Your task to perform on an android device: Open Android settings Image 0: 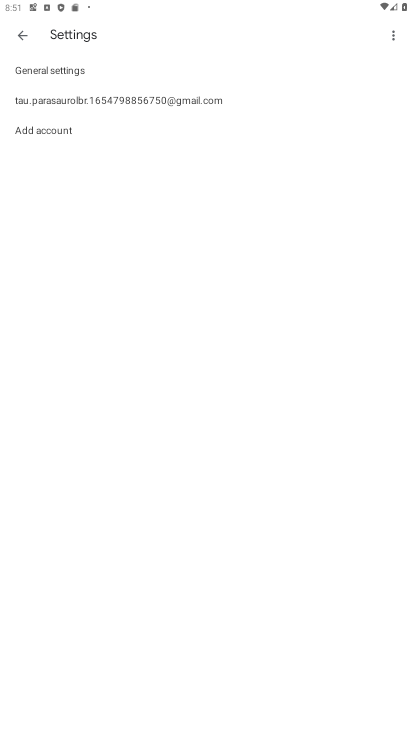
Step 0: press home button
Your task to perform on an android device: Open Android settings Image 1: 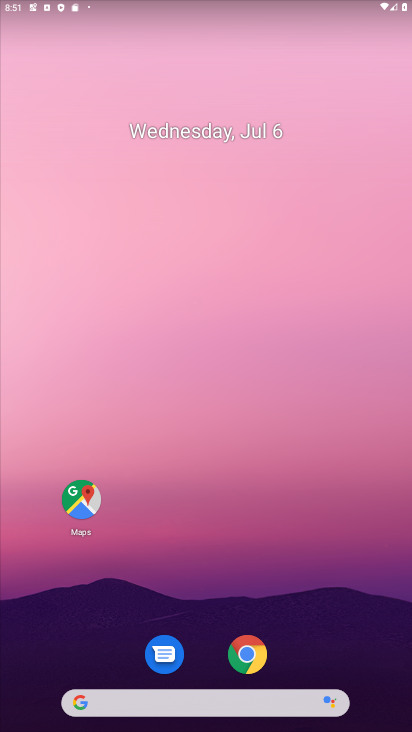
Step 1: drag from (189, 671) to (239, 211)
Your task to perform on an android device: Open Android settings Image 2: 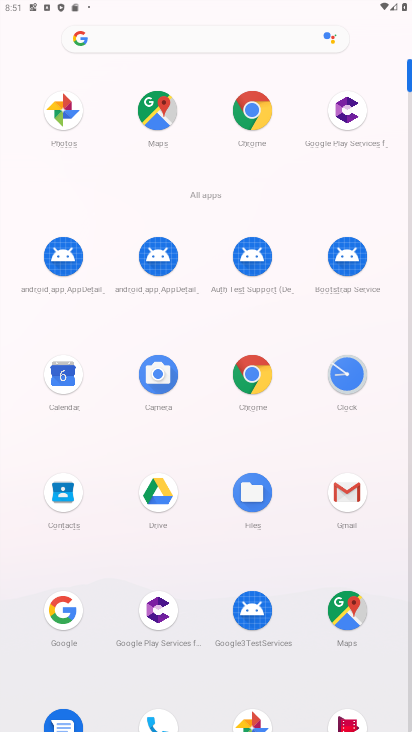
Step 2: drag from (210, 4) to (174, 436)
Your task to perform on an android device: Open Android settings Image 3: 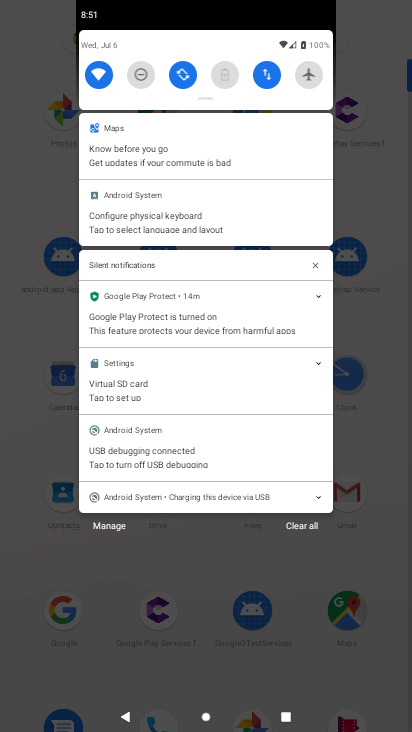
Step 3: drag from (194, 54) to (186, 520)
Your task to perform on an android device: Open Android settings Image 4: 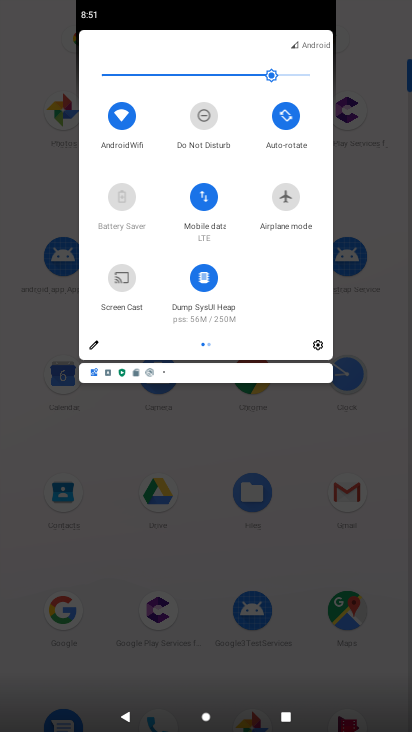
Step 4: click (316, 346)
Your task to perform on an android device: Open Android settings Image 5: 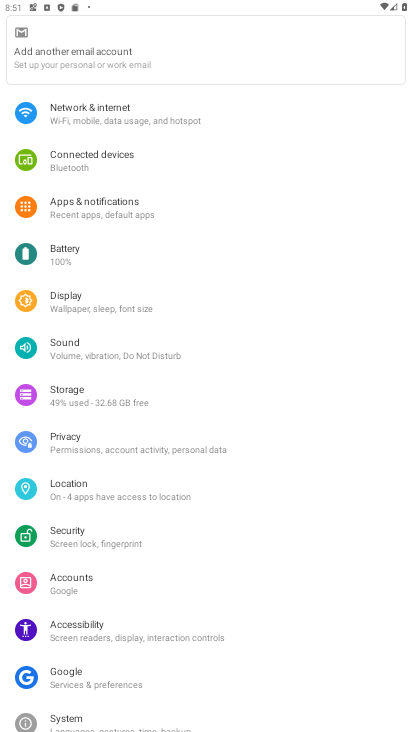
Step 5: task complete